Your task to perform on an android device: empty trash in the gmail app Image 0: 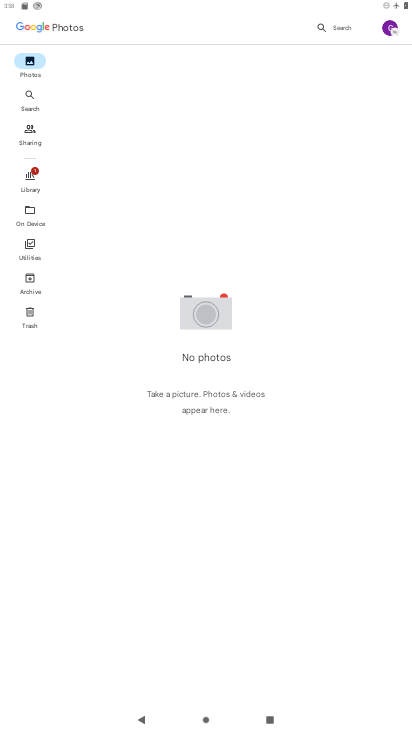
Step 0: press home button
Your task to perform on an android device: empty trash in the gmail app Image 1: 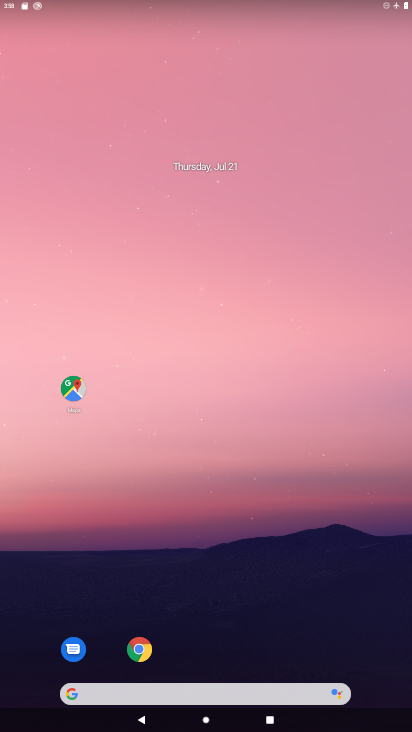
Step 1: drag from (297, 624) to (133, 31)
Your task to perform on an android device: empty trash in the gmail app Image 2: 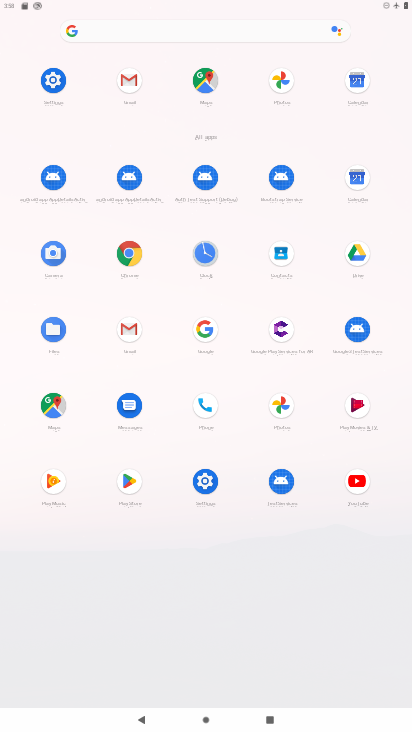
Step 2: click (125, 85)
Your task to perform on an android device: empty trash in the gmail app Image 3: 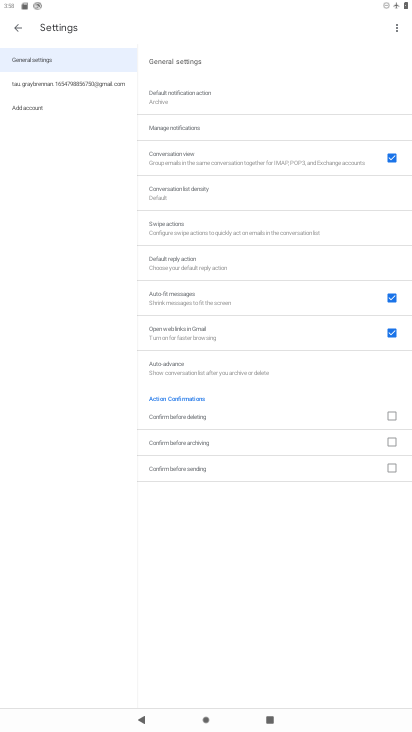
Step 3: press back button
Your task to perform on an android device: empty trash in the gmail app Image 4: 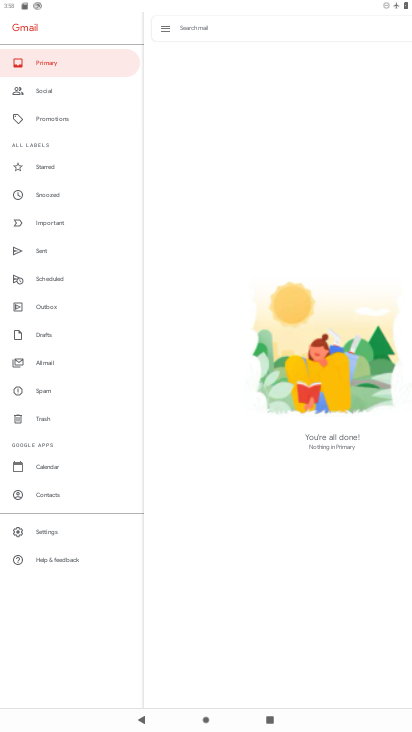
Step 4: click (61, 416)
Your task to perform on an android device: empty trash in the gmail app Image 5: 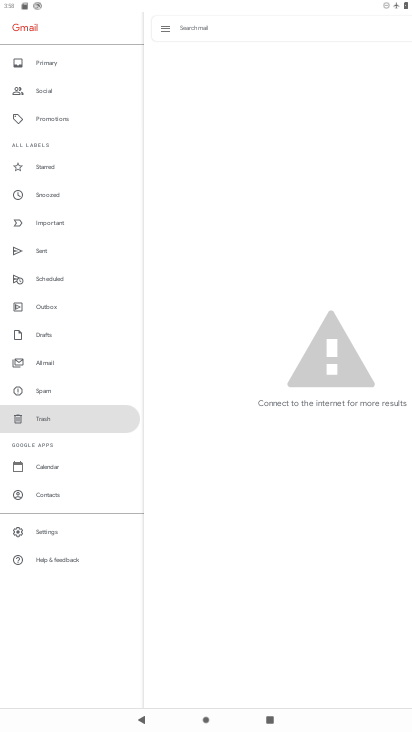
Step 5: task complete